Your task to perform on an android device: turn off translation in the chrome app Image 0: 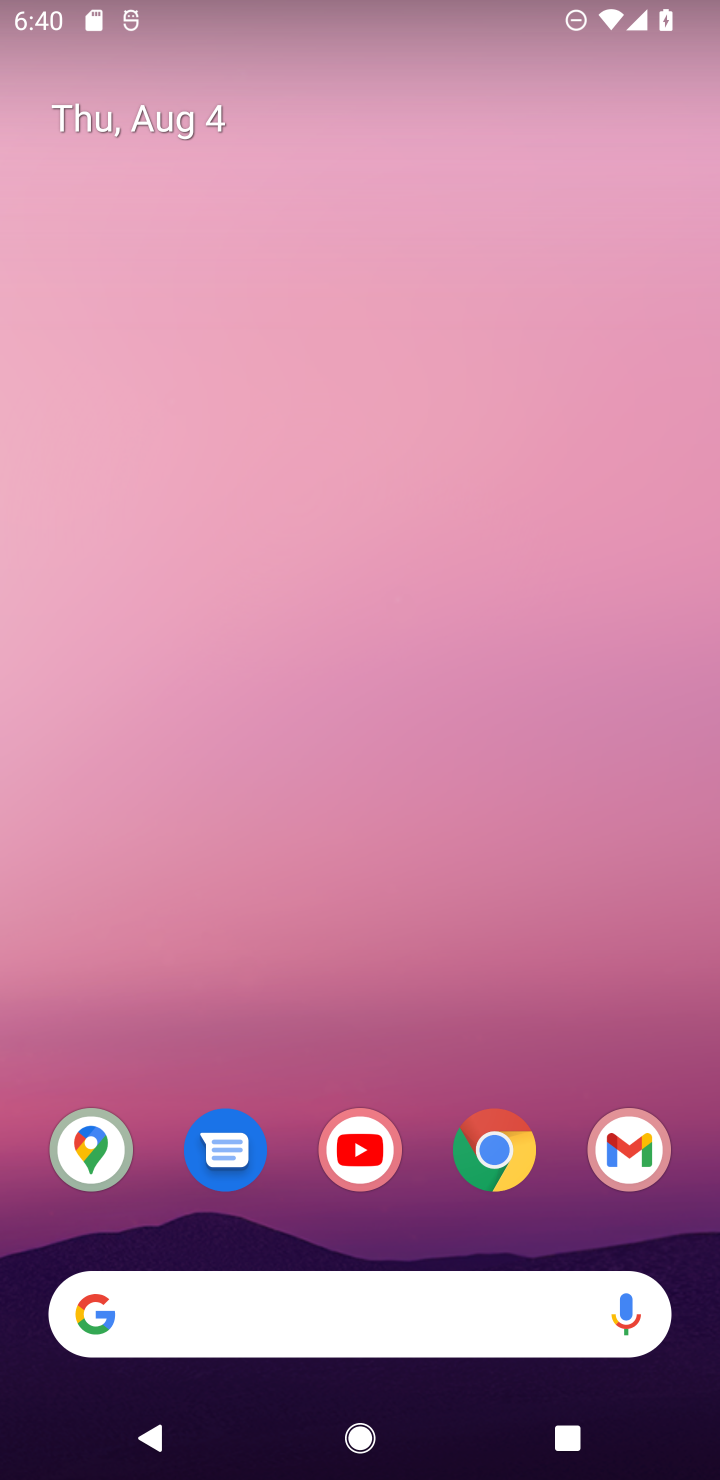
Step 0: drag from (552, 1330) to (682, 241)
Your task to perform on an android device: turn off translation in the chrome app Image 1: 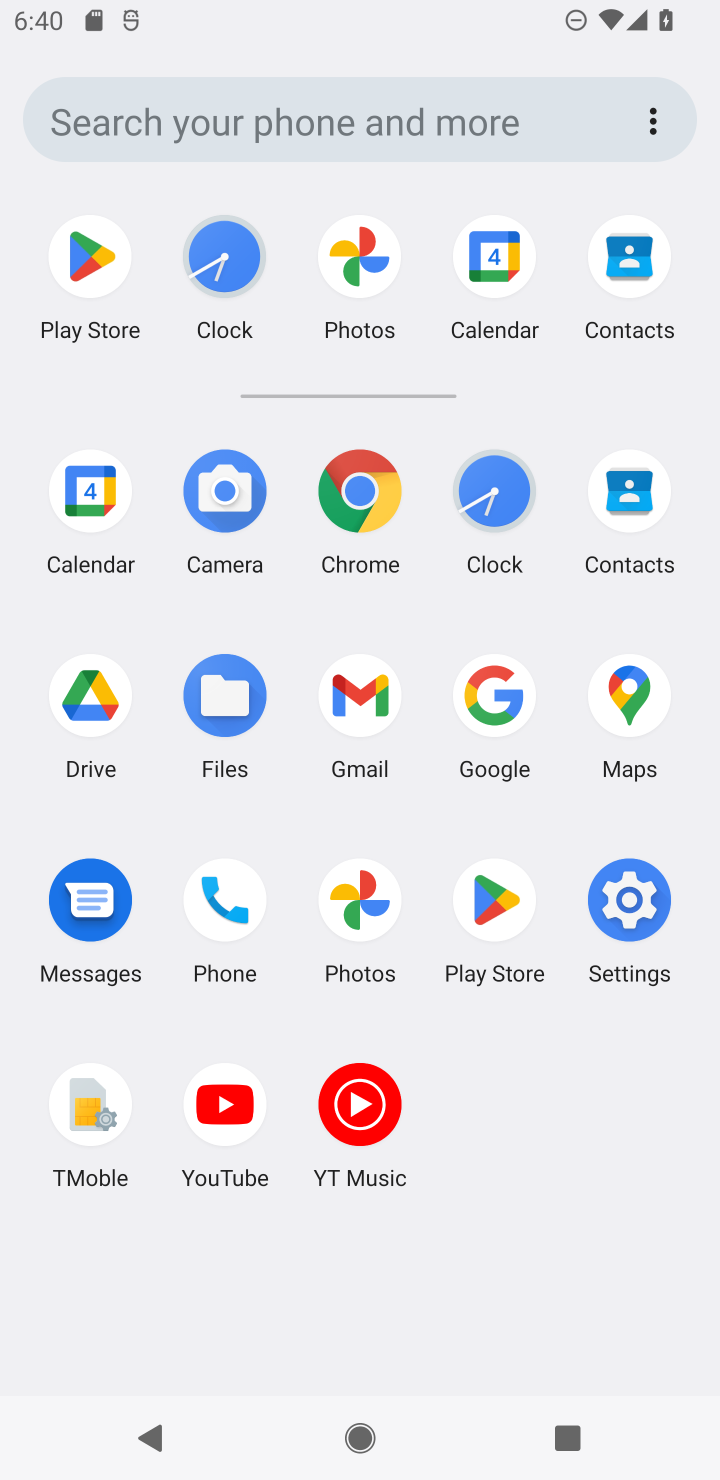
Step 1: click (350, 498)
Your task to perform on an android device: turn off translation in the chrome app Image 2: 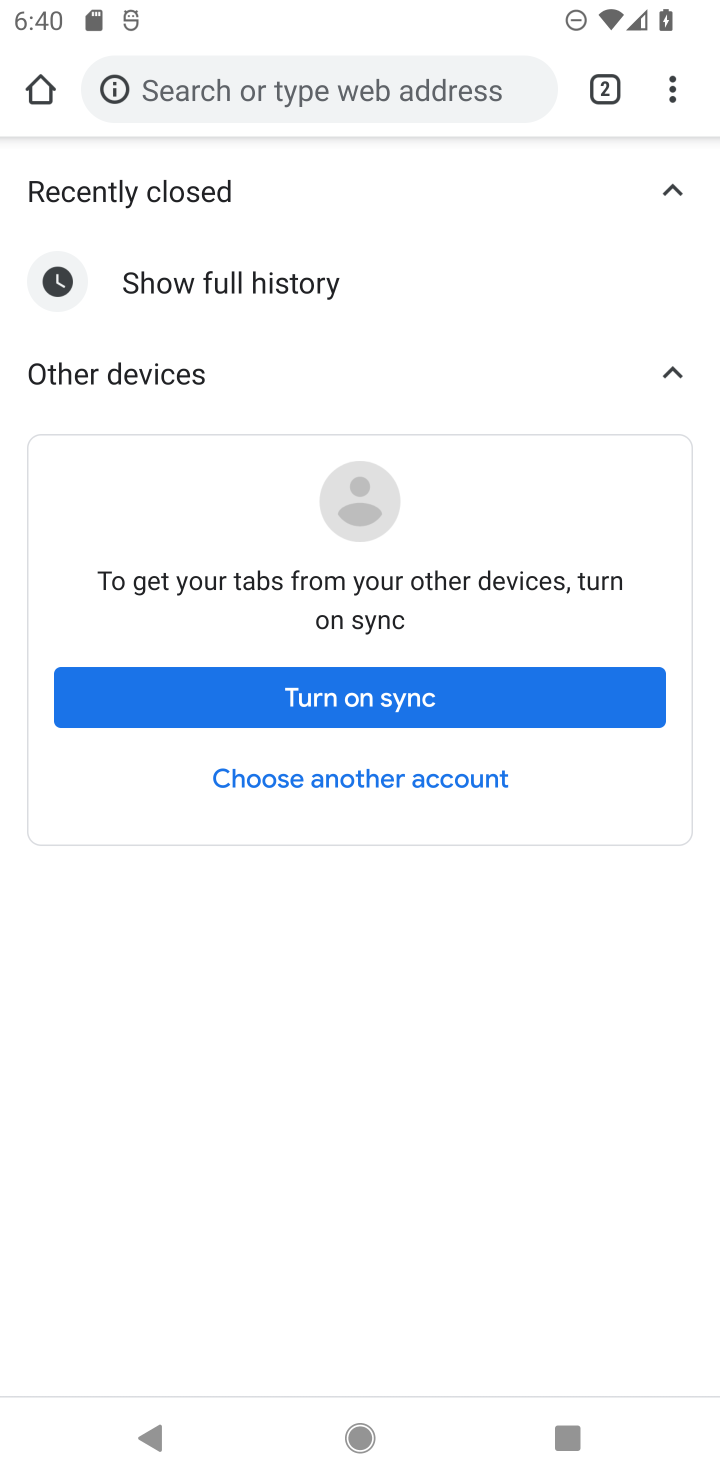
Step 2: drag from (658, 70) to (427, 904)
Your task to perform on an android device: turn off translation in the chrome app Image 3: 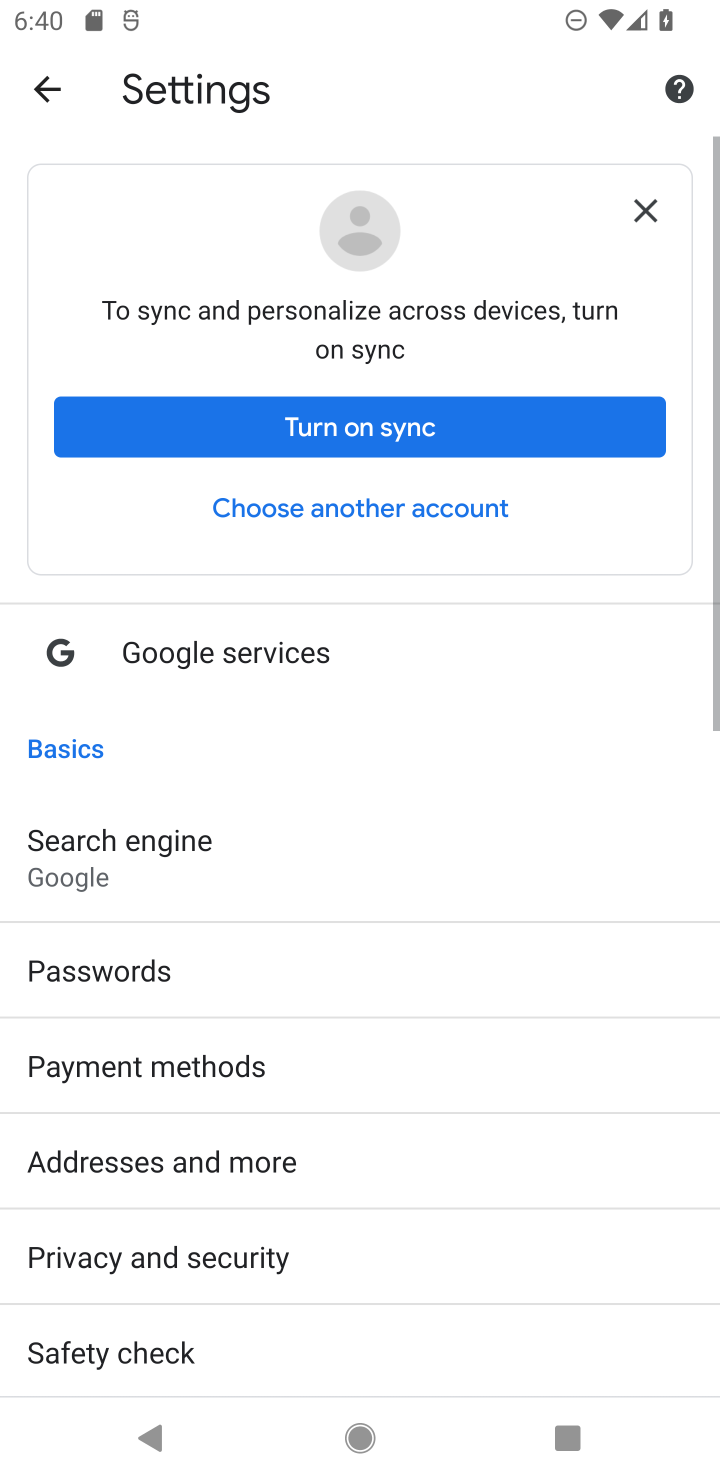
Step 3: drag from (313, 1278) to (335, 110)
Your task to perform on an android device: turn off translation in the chrome app Image 4: 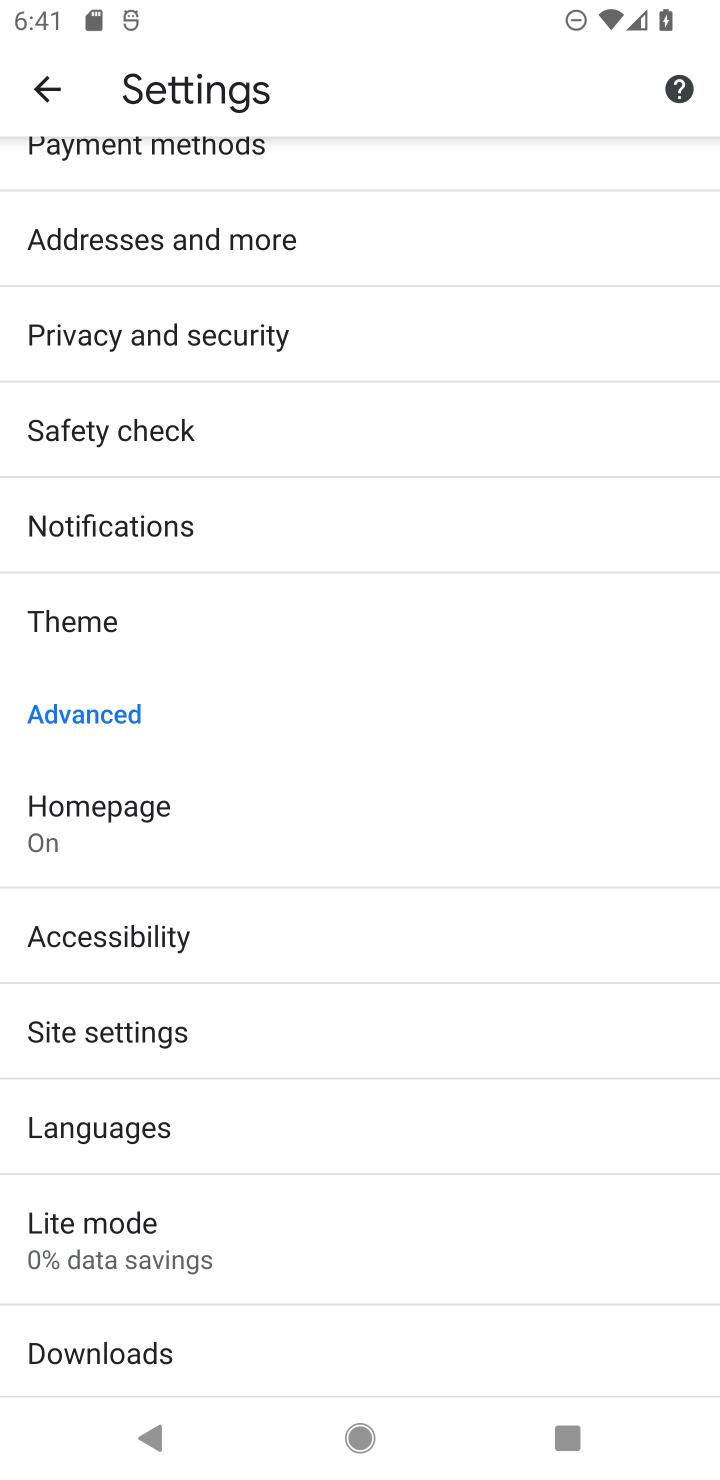
Step 4: click (158, 1117)
Your task to perform on an android device: turn off translation in the chrome app Image 5: 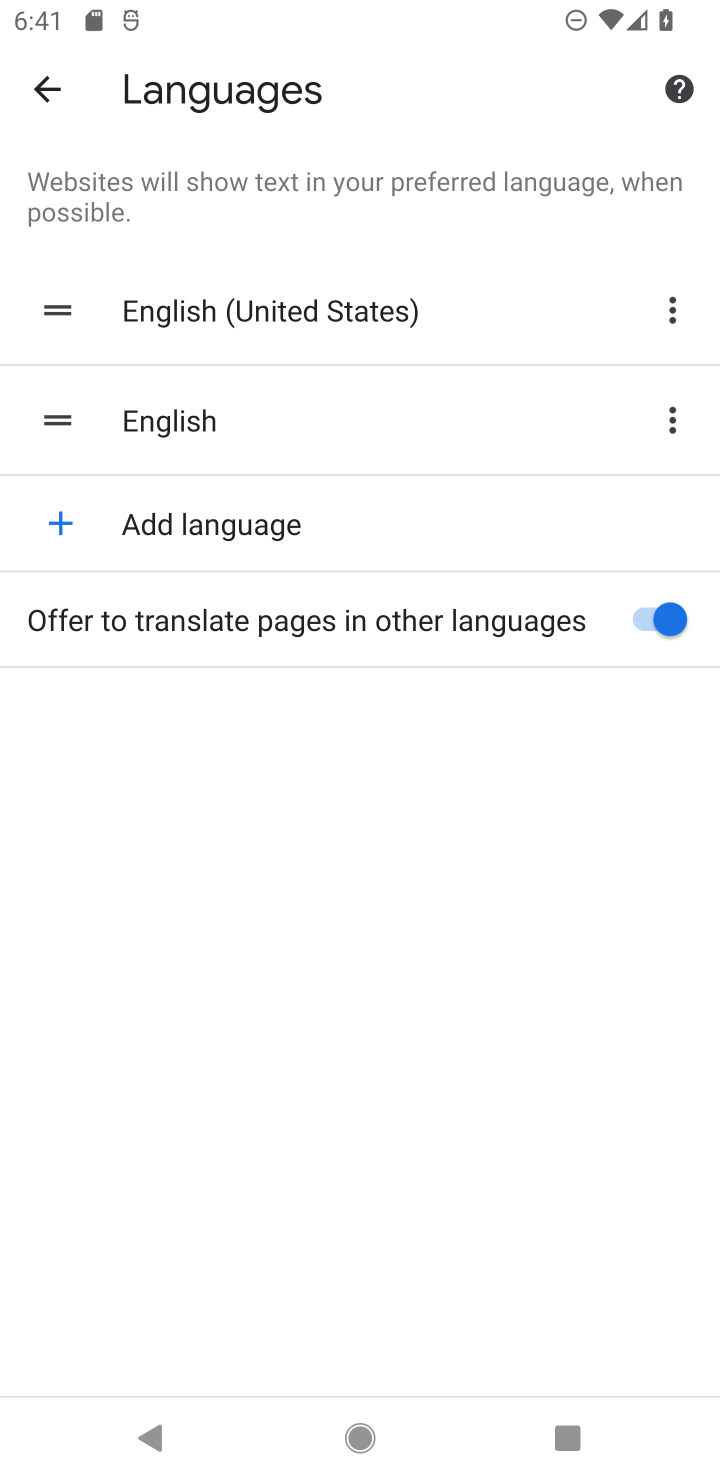
Step 5: click (671, 616)
Your task to perform on an android device: turn off translation in the chrome app Image 6: 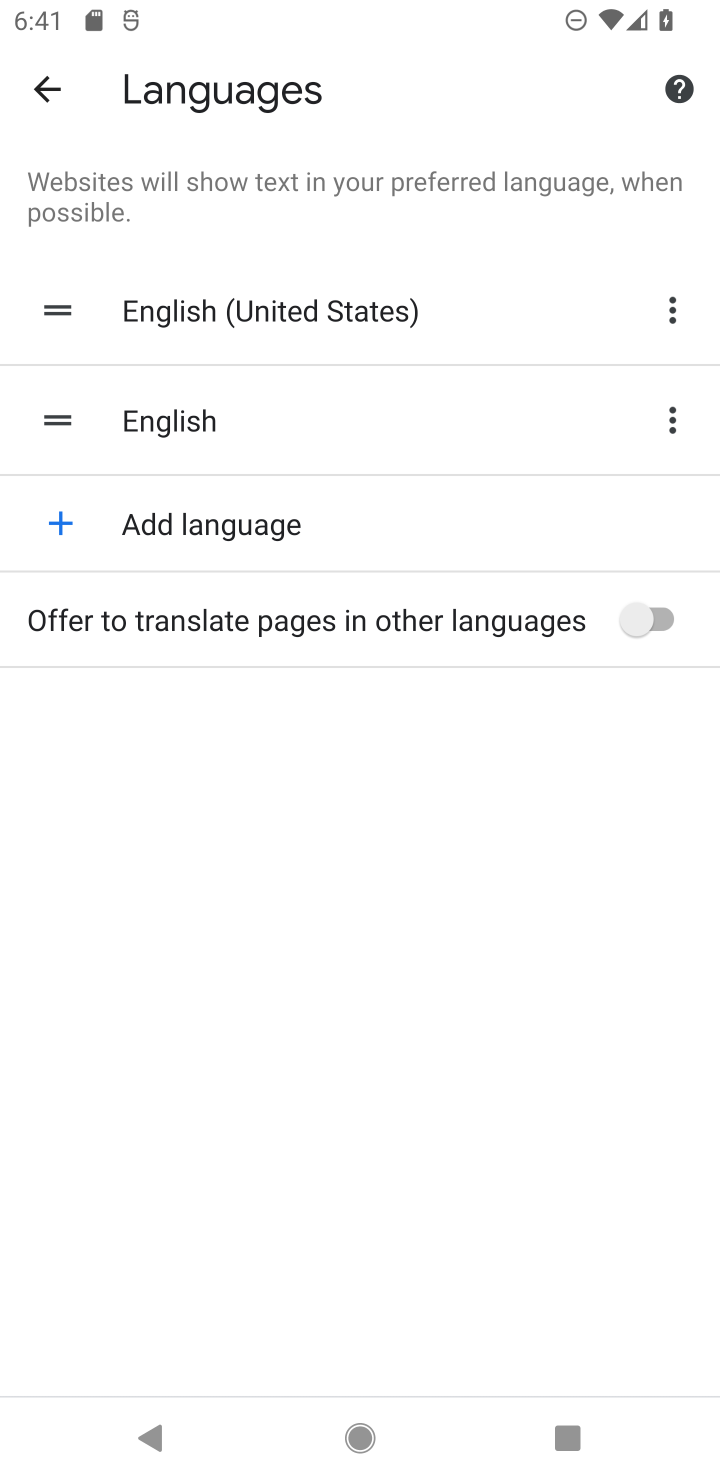
Step 6: task complete